Your task to perform on an android device: open chrome and create a bookmark for the current page Image 0: 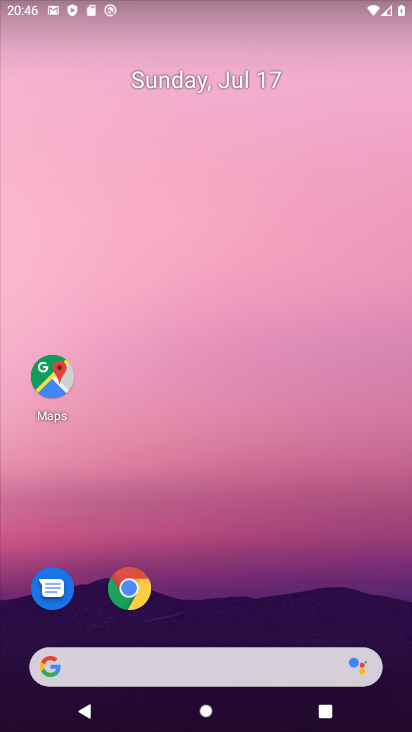
Step 0: click (119, 588)
Your task to perform on an android device: open chrome and create a bookmark for the current page Image 1: 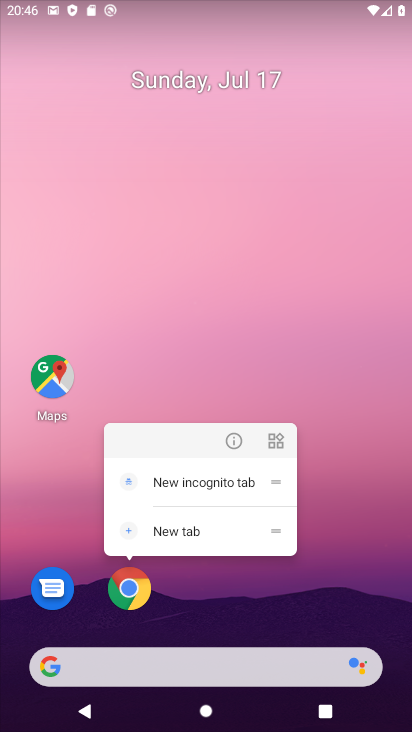
Step 1: click (119, 588)
Your task to perform on an android device: open chrome and create a bookmark for the current page Image 2: 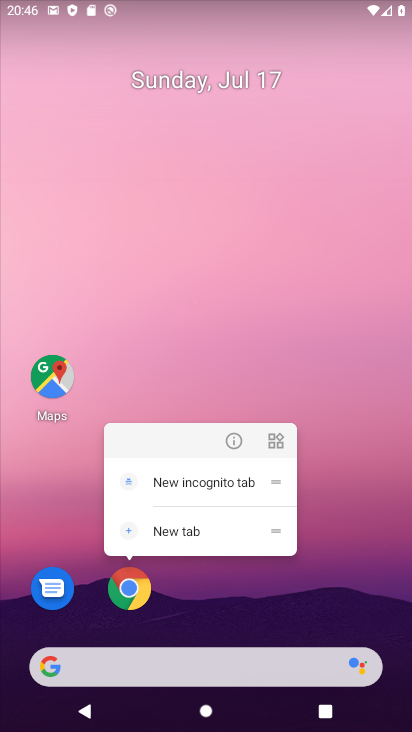
Step 2: click (119, 588)
Your task to perform on an android device: open chrome and create a bookmark for the current page Image 3: 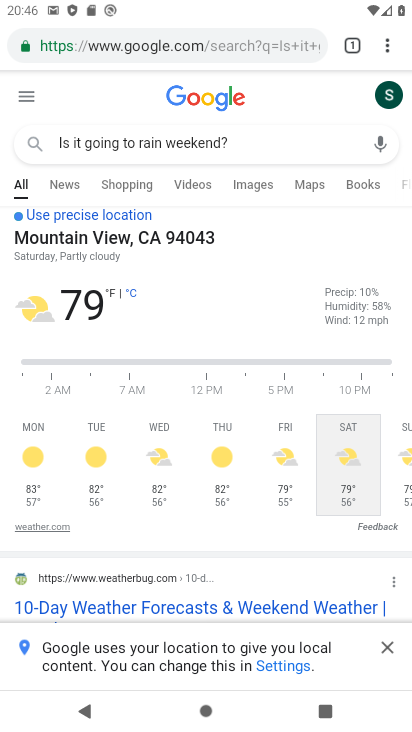
Step 3: task complete